Your task to perform on an android device: Add "macbook air" to the cart on costco.com Image 0: 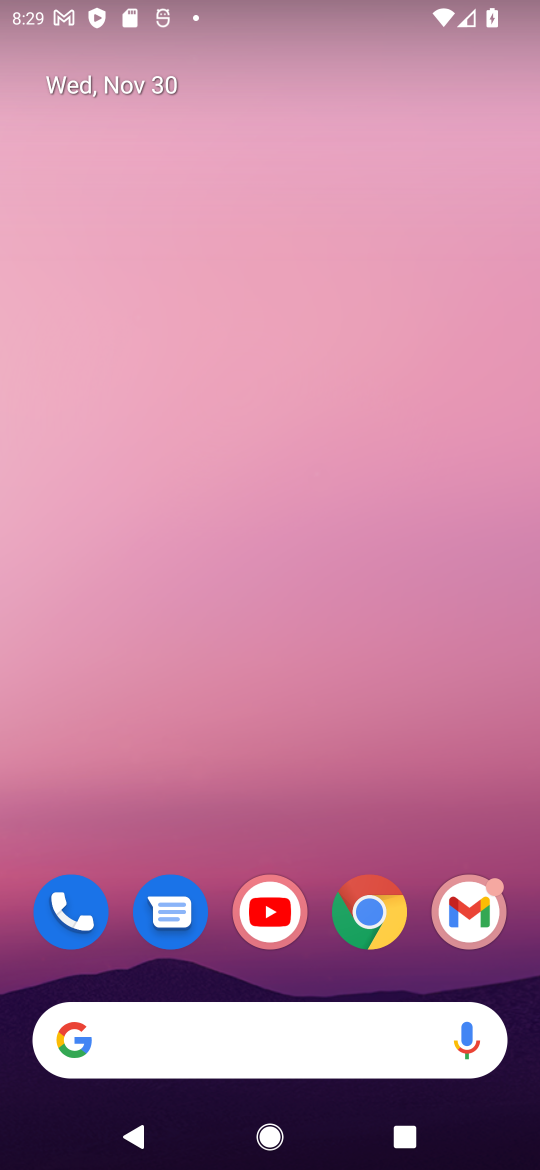
Step 0: click (274, 1046)
Your task to perform on an android device: Add "macbook air" to the cart on costco.com Image 1: 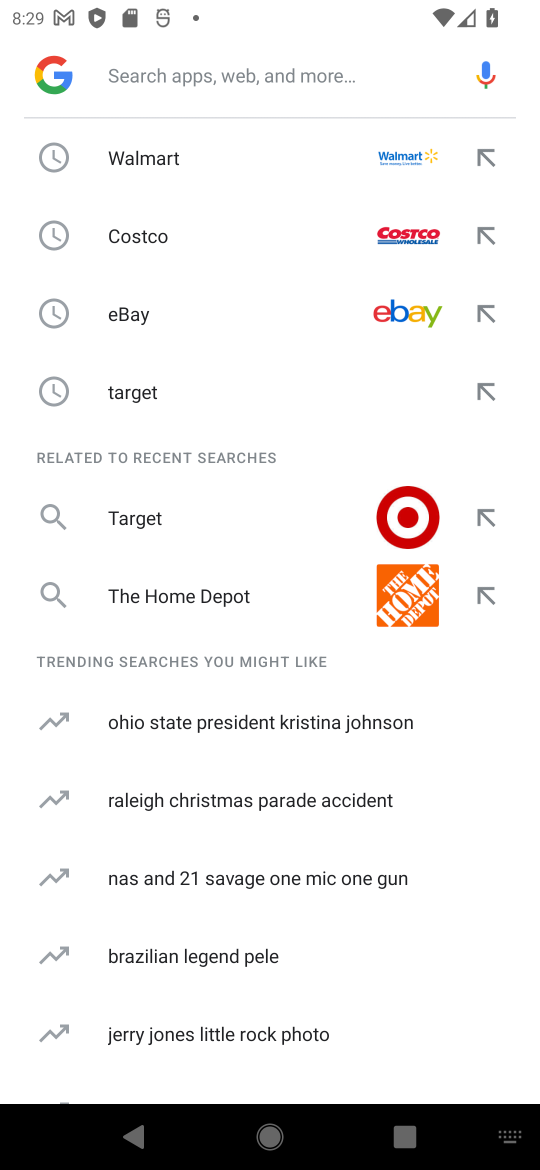
Step 1: type " costco.com"
Your task to perform on an android device: Add "macbook air" to the cart on costco.com Image 2: 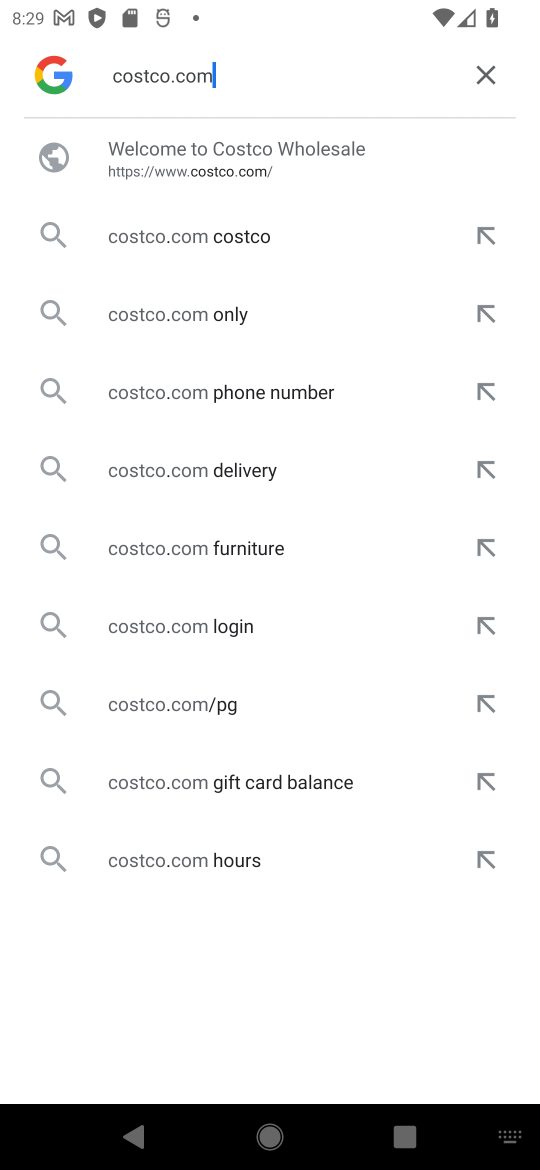
Step 2: click (252, 170)
Your task to perform on an android device: Add "macbook air" to the cart on costco.com Image 3: 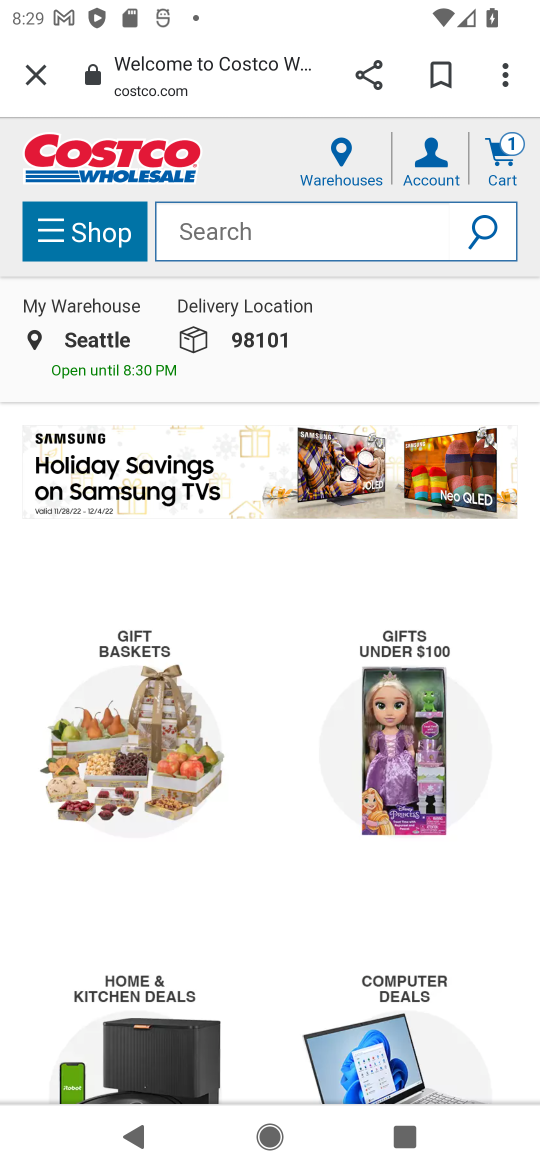
Step 3: click (256, 217)
Your task to perform on an android device: Add "macbook air" to the cart on costco.com Image 4: 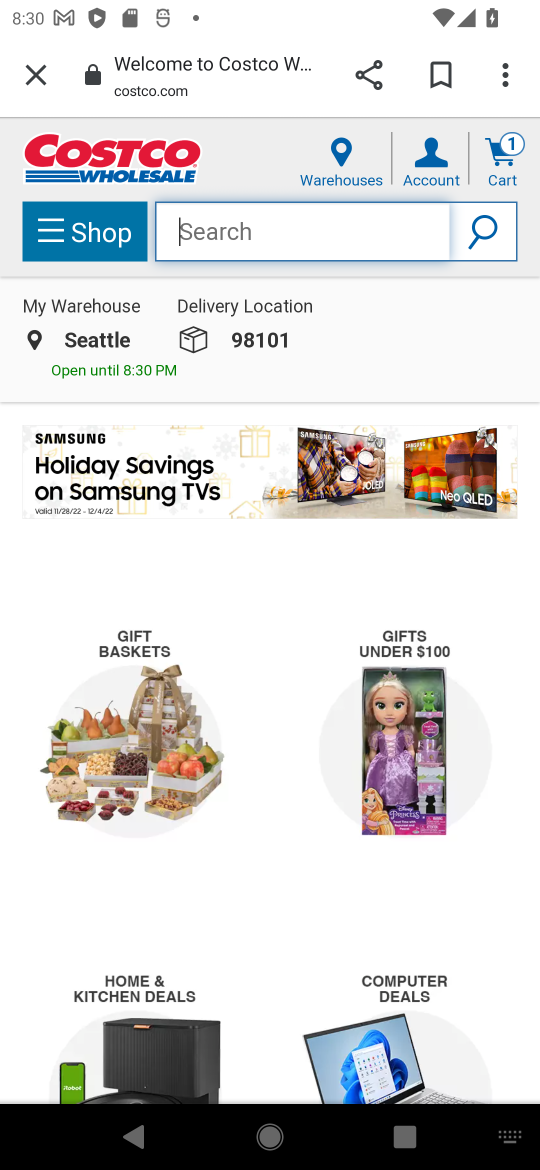
Step 4: type "macbook air"
Your task to perform on an android device: Add "macbook air" to the cart on costco.com Image 5: 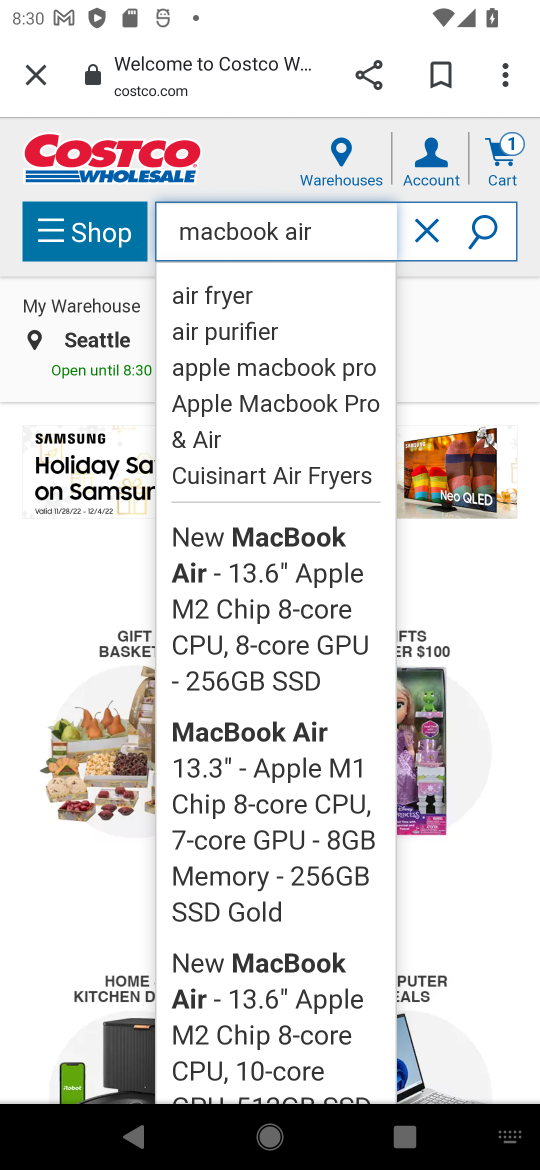
Step 5: click (478, 227)
Your task to perform on an android device: Add "macbook air" to the cart on costco.com Image 6: 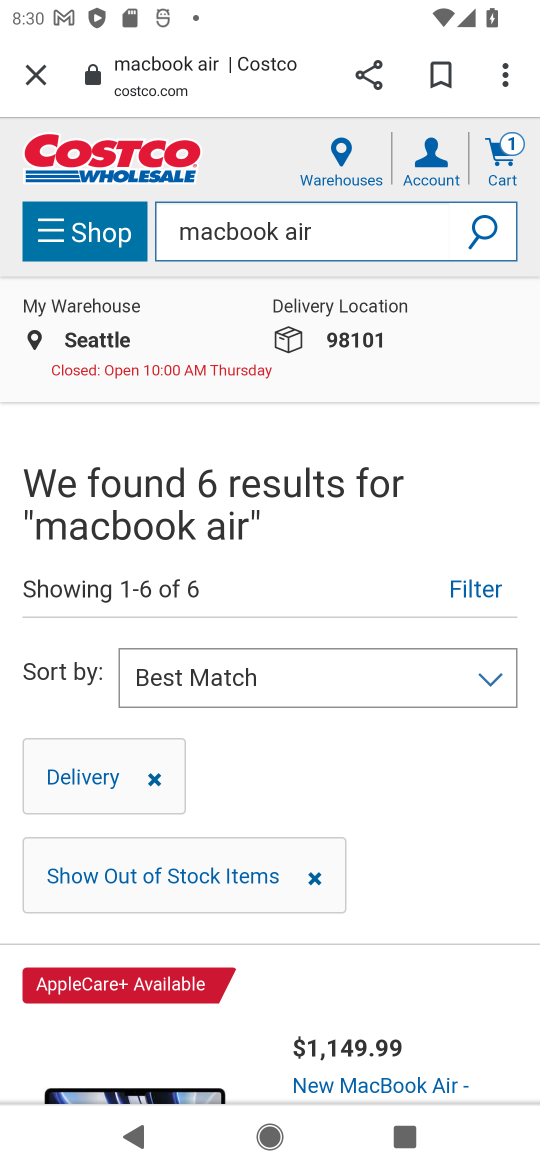
Step 6: drag from (377, 791) to (378, 371)
Your task to perform on an android device: Add "macbook air" to the cart on costco.com Image 7: 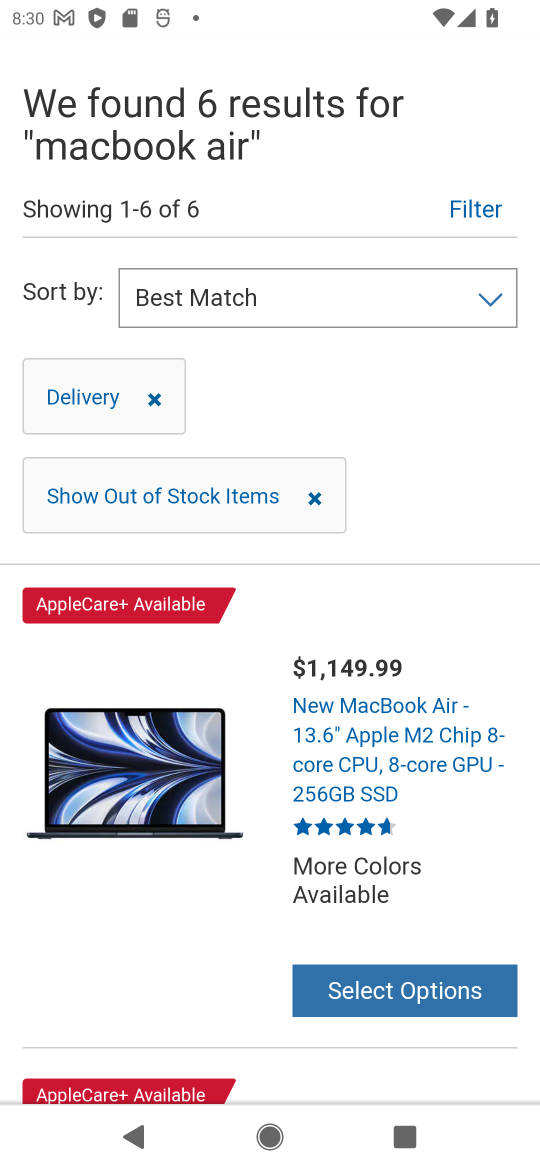
Step 7: click (396, 992)
Your task to perform on an android device: Add "macbook air" to the cart on costco.com Image 8: 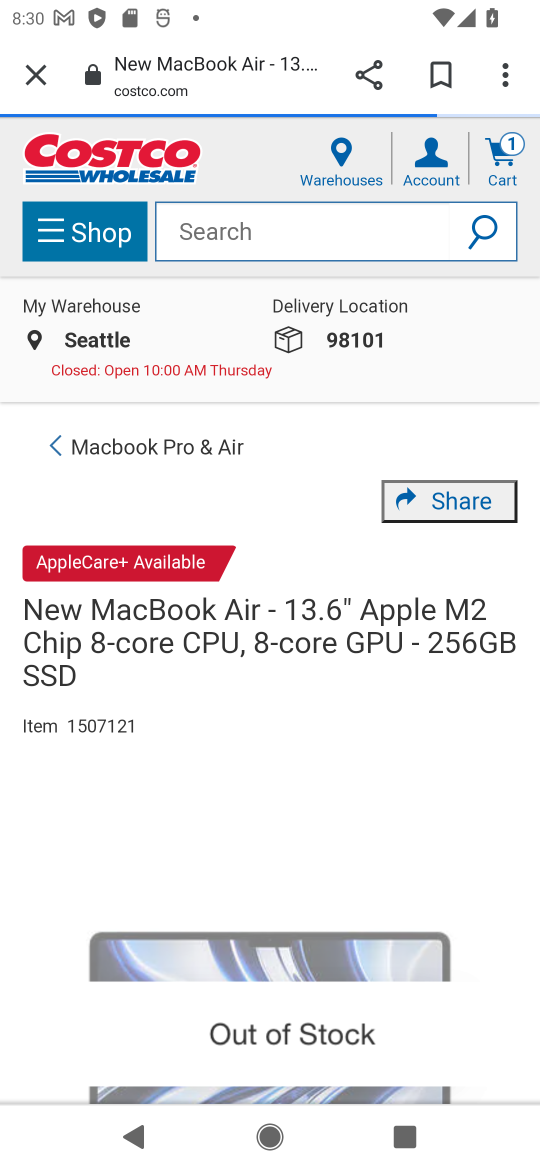
Step 8: task complete